Your task to perform on an android device: See recent photos Image 0: 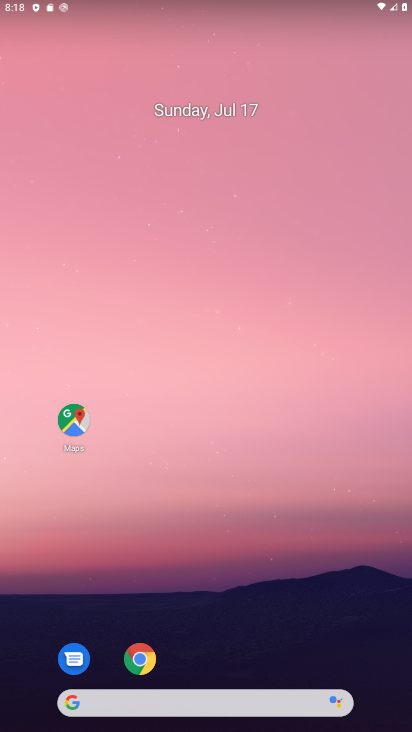
Step 0: drag from (197, 701) to (297, 165)
Your task to perform on an android device: See recent photos Image 1: 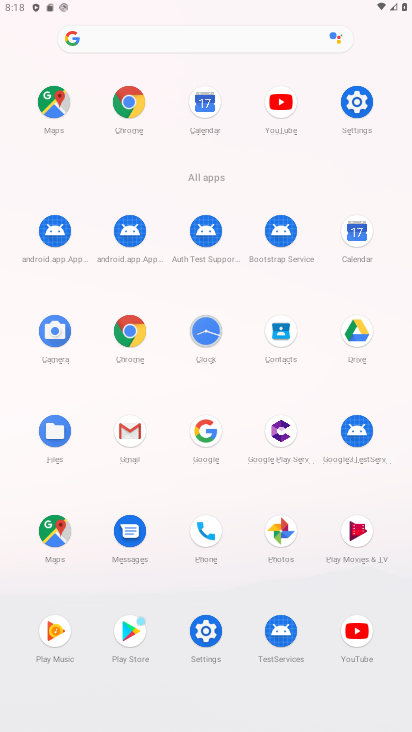
Step 1: click (282, 532)
Your task to perform on an android device: See recent photos Image 2: 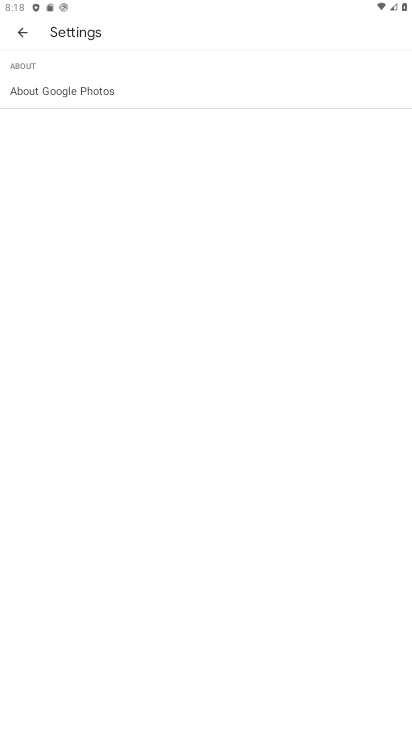
Step 2: press back button
Your task to perform on an android device: See recent photos Image 3: 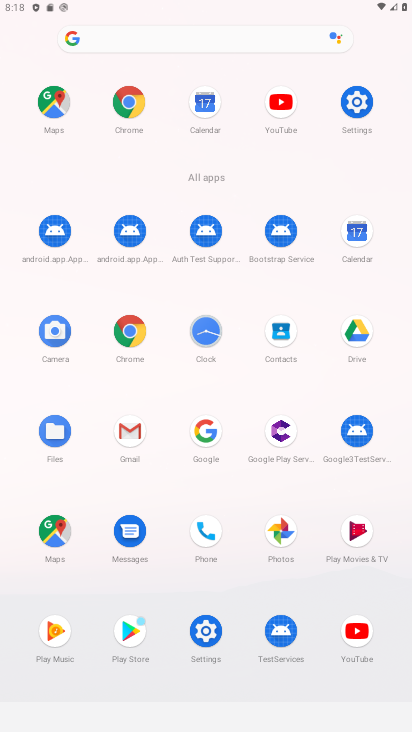
Step 3: click (279, 529)
Your task to perform on an android device: See recent photos Image 4: 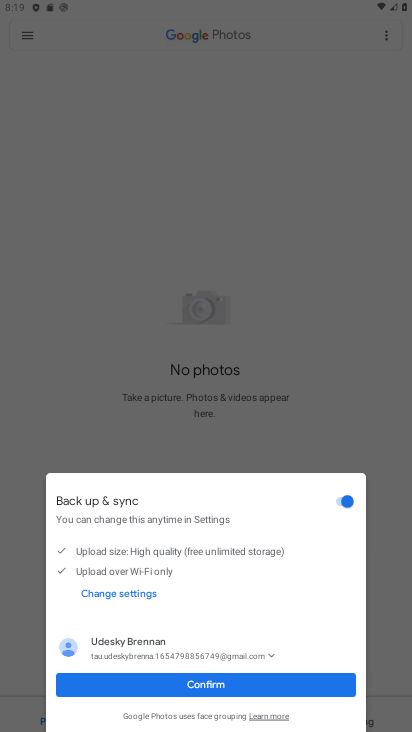
Step 4: click (249, 682)
Your task to perform on an android device: See recent photos Image 5: 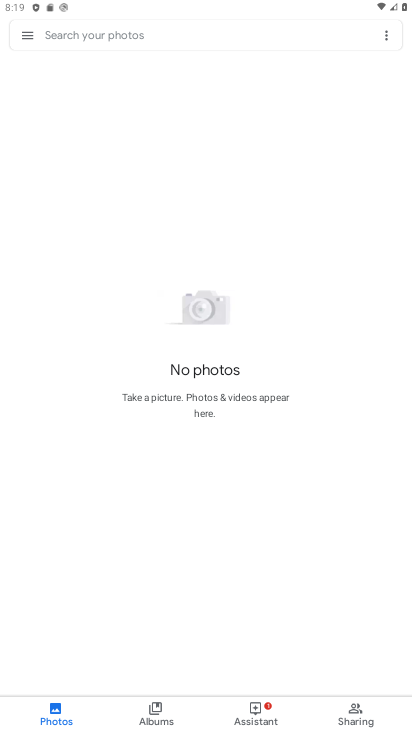
Step 5: click (160, 713)
Your task to perform on an android device: See recent photos Image 6: 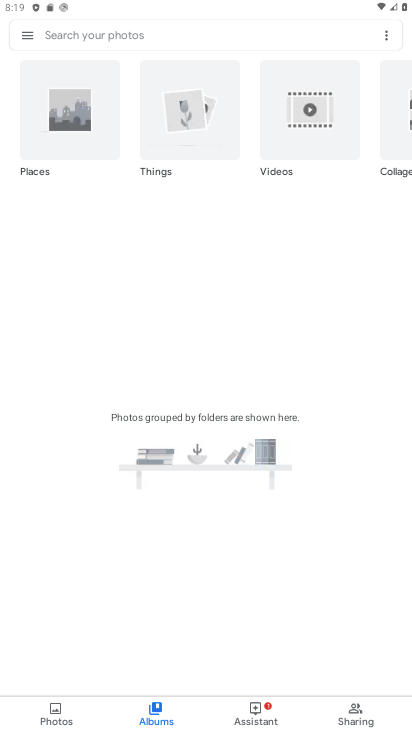
Step 6: drag from (313, 141) to (75, 85)
Your task to perform on an android device: See recent photos Image 7: 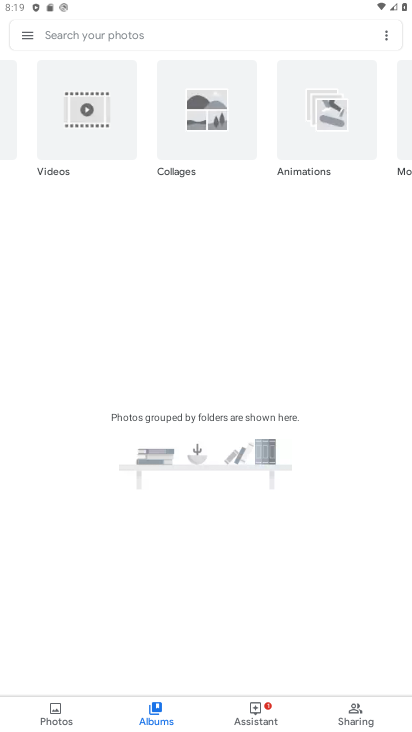
Step 7: drag from (362, 118) to (209, 128)
Your task to perform on an android device: See recent photos Image 8: 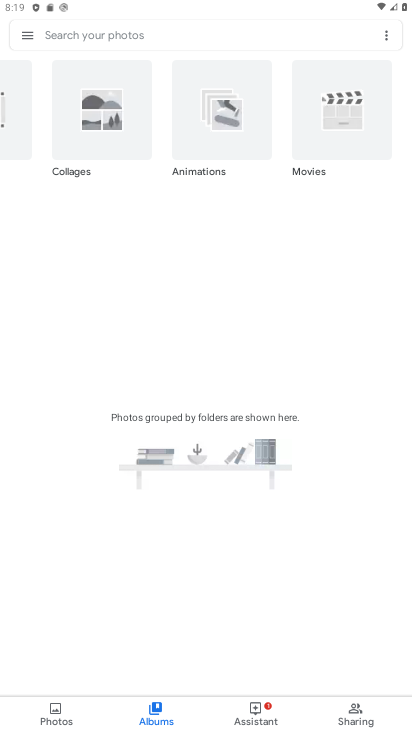
Step 8: drag from (82, 138) to (361, 134)
Your task to perform on an android device: See recent photos Image 9: 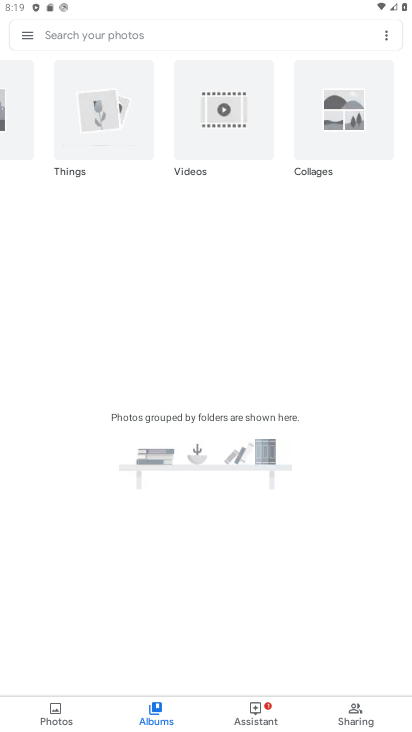
Step 9: drag from (96, 113) to (305, 124)
Your task to perform on an android device: See recent photos Image 10: 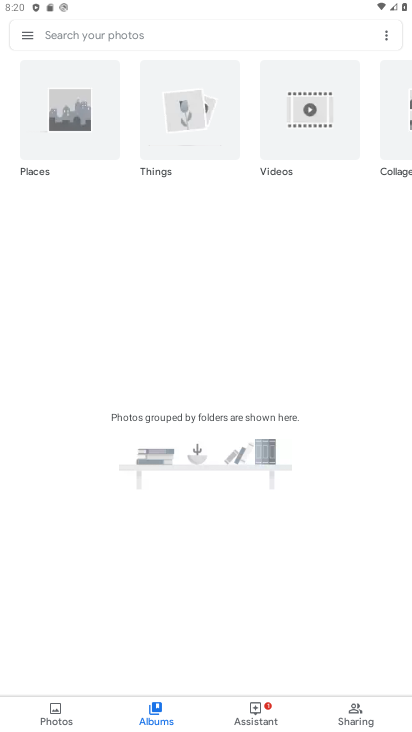
Step 10: drag from (224, 134) to (1, 180)
Your task to perform on an android device: See recent photos Image 11: 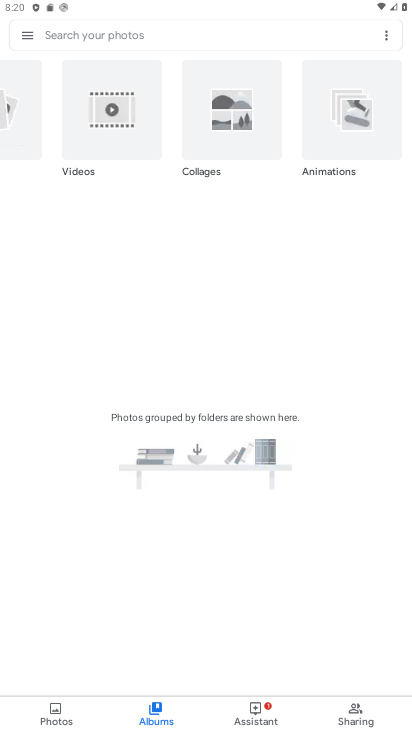
Step 11: drag from (357, 138) to (75, 98)
Your task to perform on an android device: See recent photos Image 12: 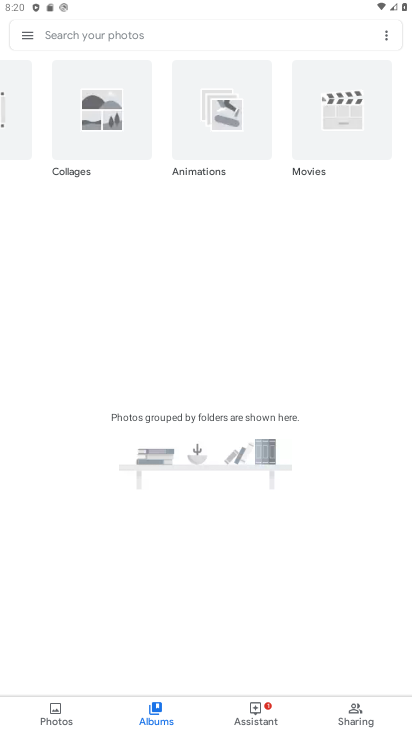
Step 12: drag from (340, 130) to (104, 110)
Your task to perform on an android device: See recent photos Image 13: 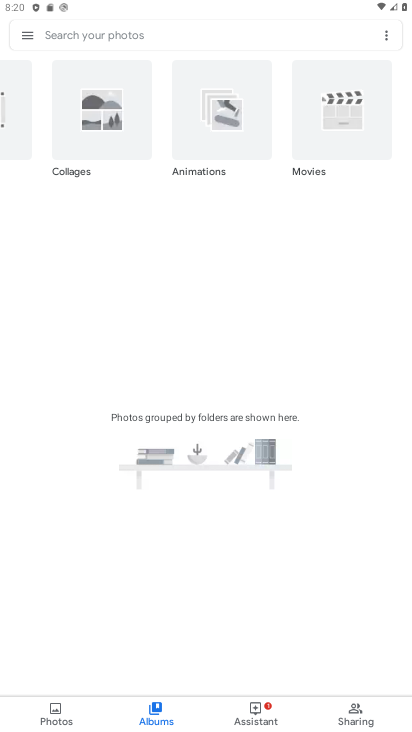
Step 13: click (59, 714)
Your task to perform on an android device: See recent photos Image 14: 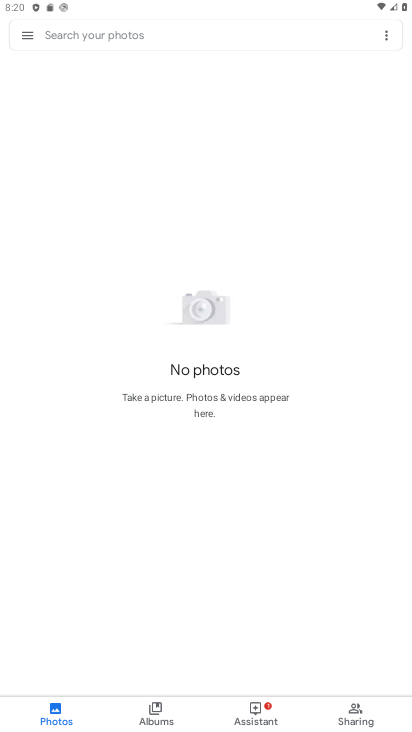
Step 14: task complete